Your task to perform on an android device: Open ESPN.com Image 0: 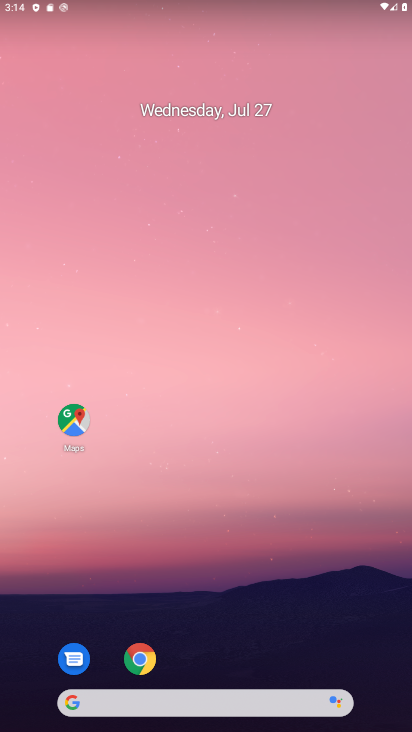
Step 0: click (142, 654)
Your task to perform on an android device: Open ESPN.com Image 1: 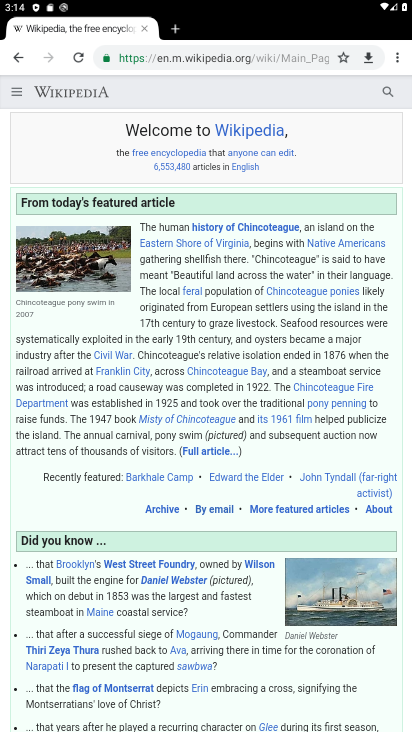
Step 1: click (202, 60)
Your task to perform on an android device: Open ESPN.com Image 2: 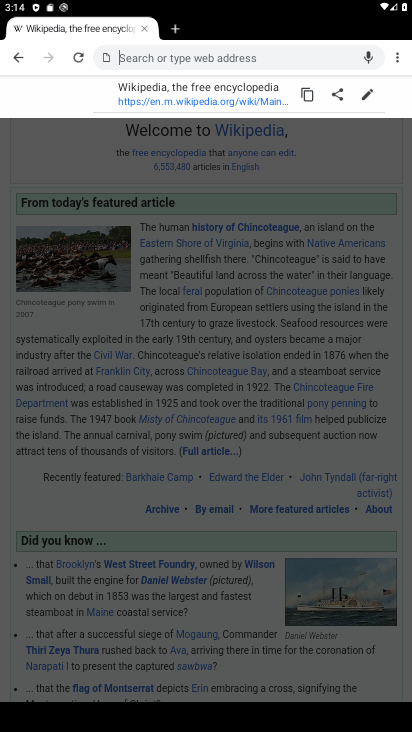
Step 2: type "espn.com"
Your task to perform on an android device: Open ESPN.com Image 3: 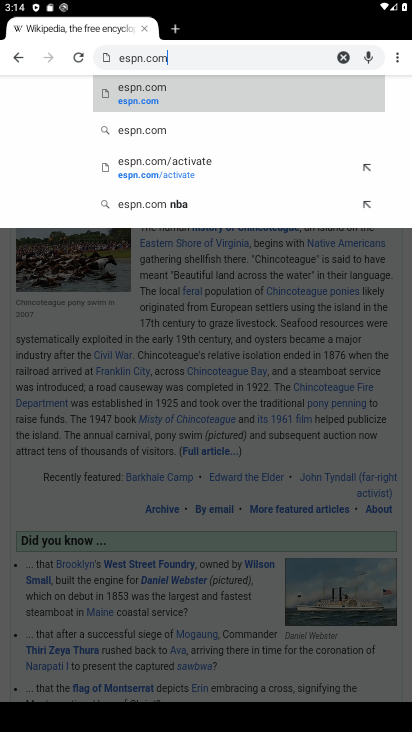
Step 3: click (149, 100)
Your task to perform on an android device: Open ESPN.com Image 4: 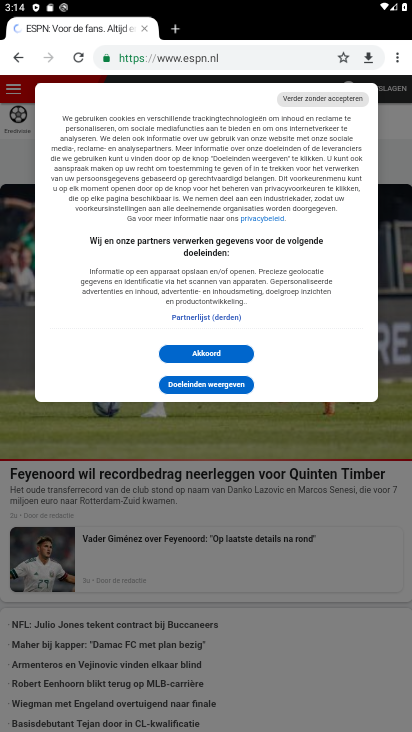
Step 4: task complete